Your task to perform on an android device: delete browsing data in the chrome app Image 0: 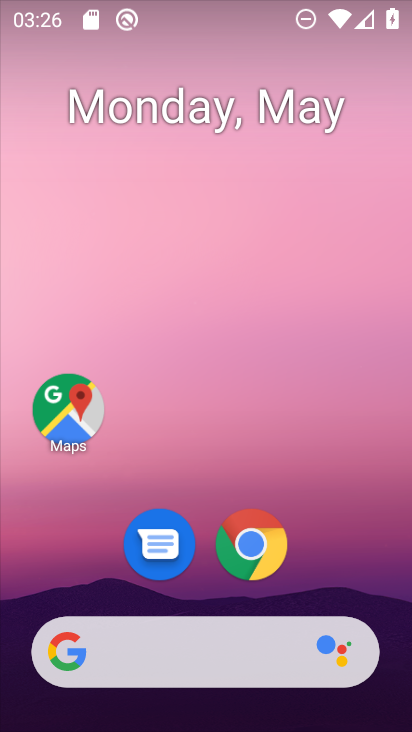
Step 0: drag from (366, 594) to (367, 224)
Your task to perform on an android device: delete browsing data in the chrome app Image 1: 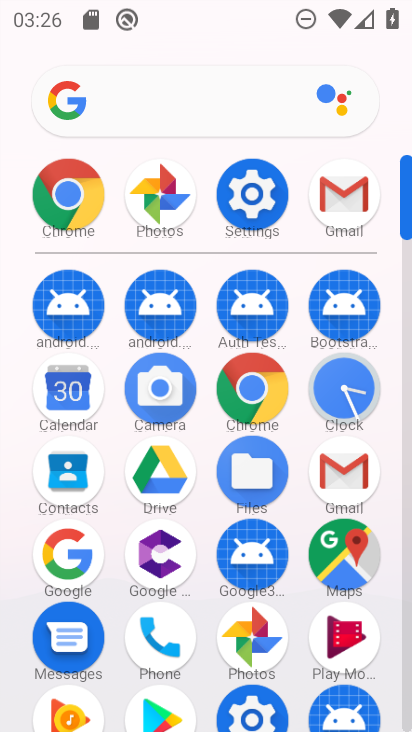
Step 1: click (275, 389)
Your task to perform on an android device: delete browsing data in the chrome app Image 2: 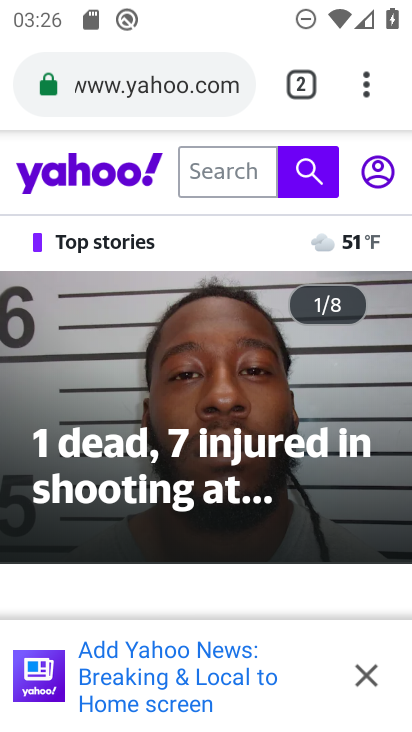
Step 2: click (367, 96)
Your task to perform on an android device: delete browsing data in the chrome app Image 3: 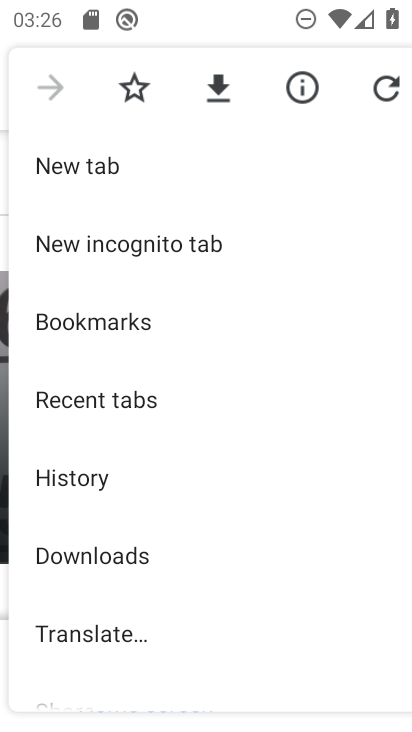
Step 3: drag from (299, 415) to (329, 248)
Your task to perform on an android device: delete browsing data in the chrome app Image 4: 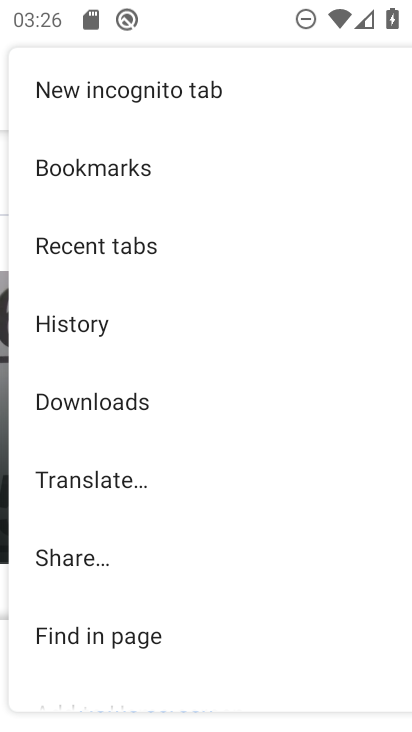
Step 4: drag from (313, 503) to (317, 365)
Your task to perform on an android device: delete browsing data in the chrome app Image 5: 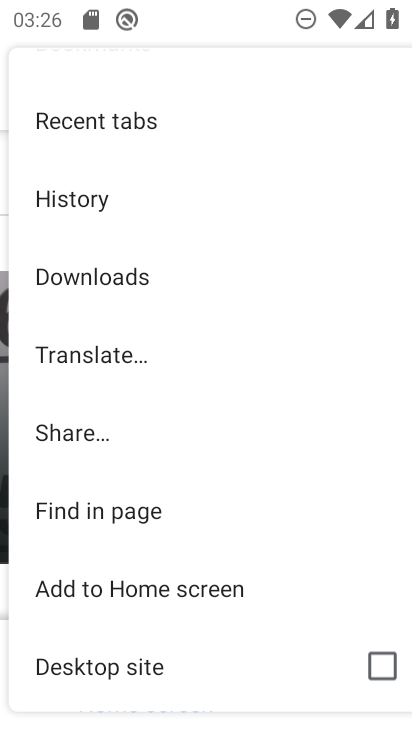
Step 5: drag from (309, 526) to (309, 366)
Your task to perform on an android device: delete browsing data in the chrome app Image 6: 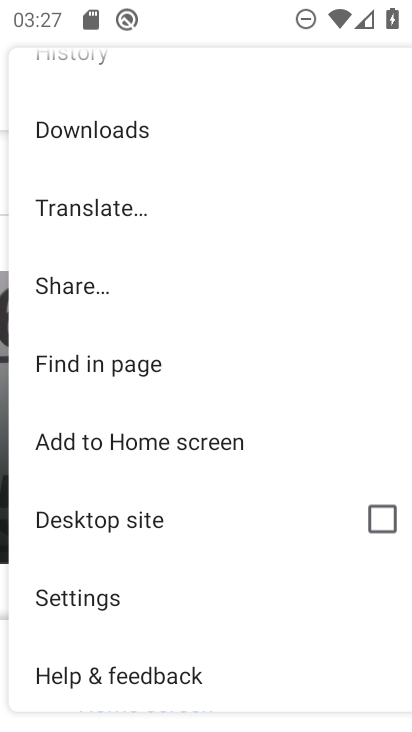
Step 6: click (130, 599)
Your task to perform on an android device: delete browsing data in the chrome app Image 7: 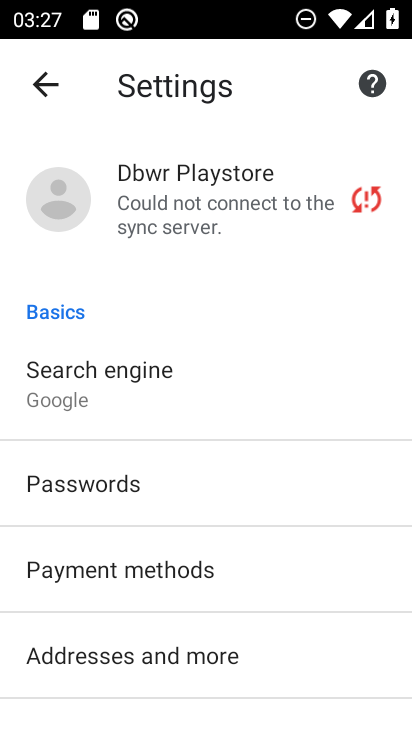
Step 7: drag from (296, 585) to (294, 403)
Your task to perform on an android device: delete browsing data in the chrome app Image 8: 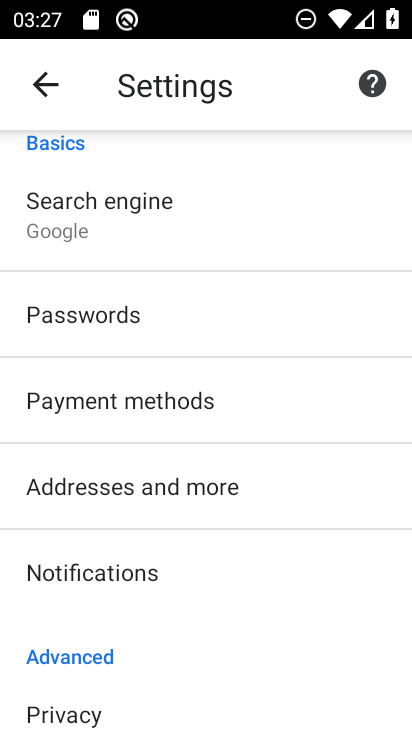
Step 8: drag from (298, 576) to (299, 414)
Your task to perform on an android device: delete browsing data in the chrome app Image 9: 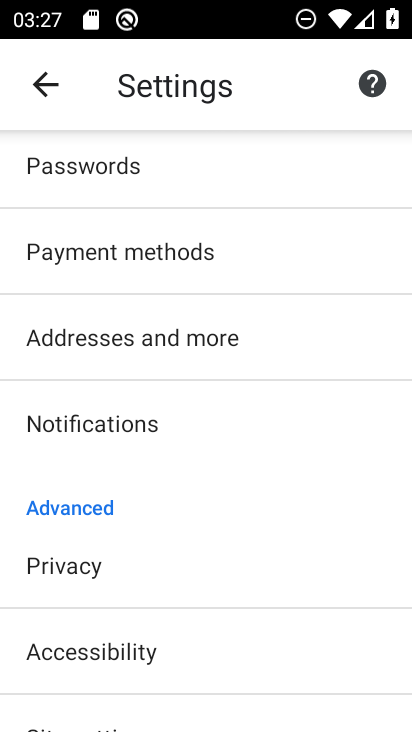
Step 9: drag from (304, 616) to (302, 362)
Your task to perform on an android device: delete browsing data in the chrome app Image 10: 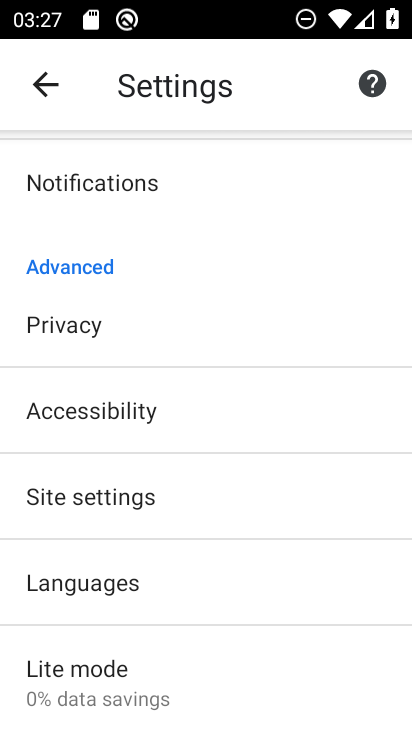
Step 10: click (214, 322)
Your task to perform on an android device: delete browsing data in the chrome app Image 11: 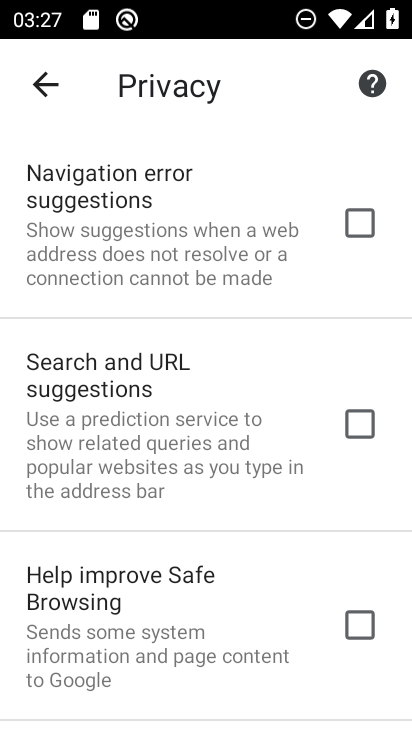
Step 11: drag from (244, 567) to (246, 376)
Your task to perform on an android device: delete browsing data in the chrome app Image 12: 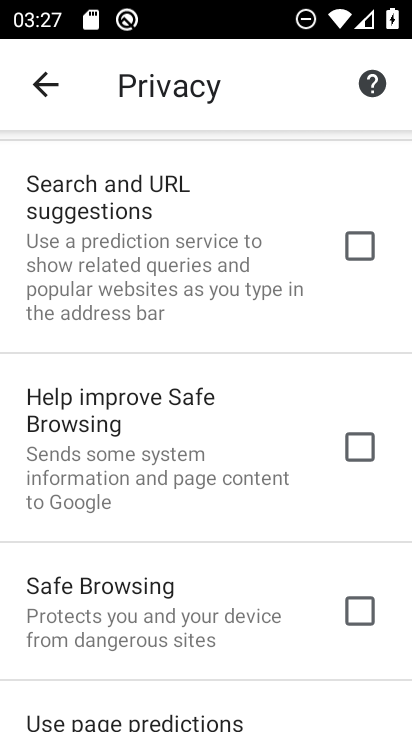
Step 12: drag from (259, 537) to (263, 415)
Your task to perform on an android device: delete browsing data in the chrome app Image 13: 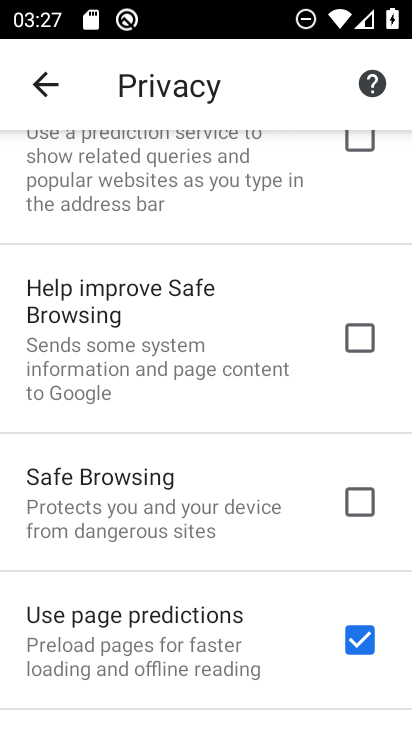
Step 13: drag from (274, 596) to (274, 485)
Your task to perform on an android device: delete browsing data in the chrome app Image 14: 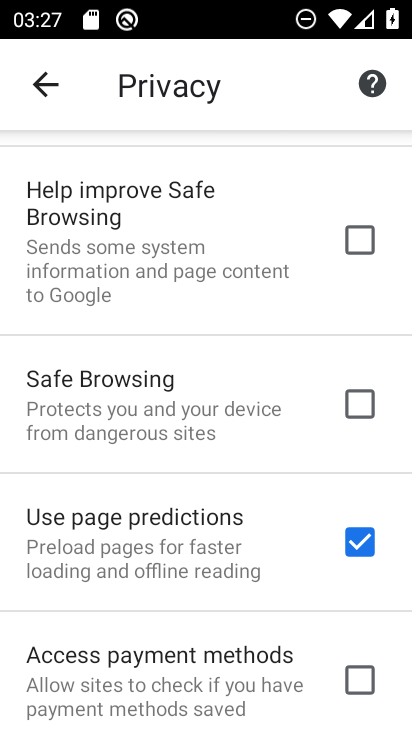
Step 14: drag from (267, 603) to (269, 455)
Your task to perform on an android device: delete browsing data in the chrome app Image 15: 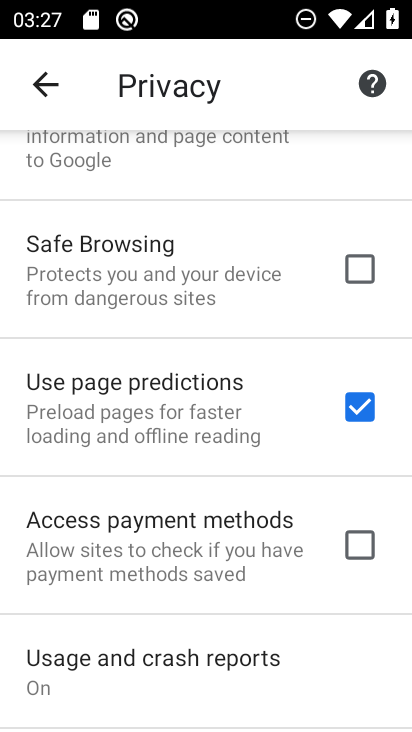
Step 15: drag from (287, 633) to (283, 338)
Your task to perform on an android device: delete browsing data in the chrome app Image 16: 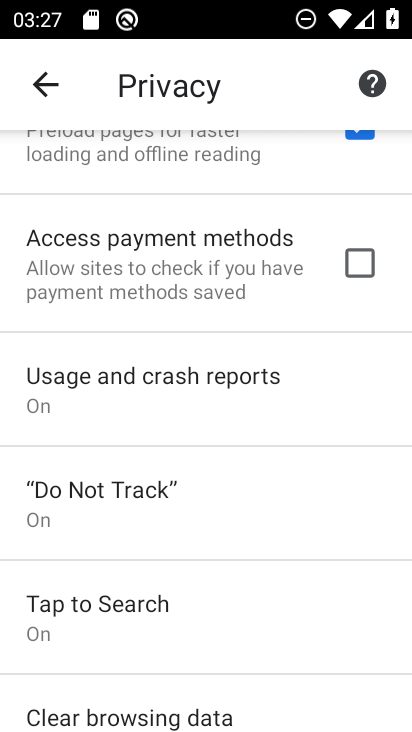
Step 16: drag from (290, 594) to (289, 422)
Your task to perform on an android device: delete browsing data in the chrome app Image 17: 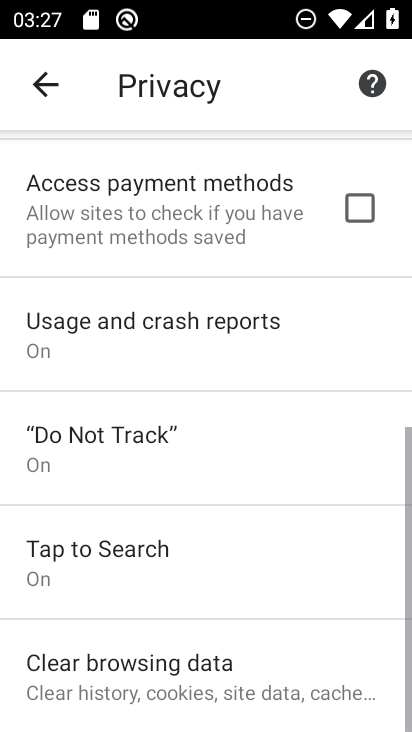
Step 17: click (264, 678)
Your task to perform on an android device: delete browsing data in the chrome app Image 18: 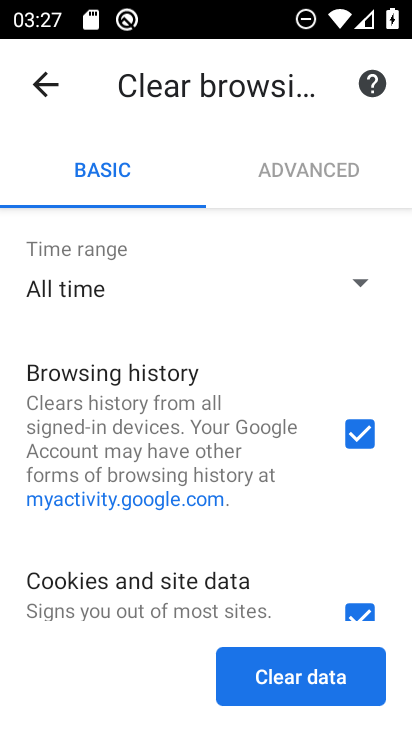
Step 18: click (301, 676)
Your task to perform on an android device: delete browsing data in the chrome app Image 19: 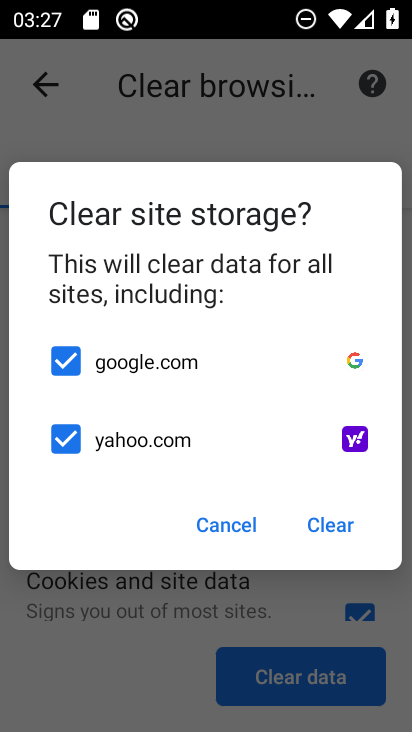
Step 19: click (334, 534)
Your task to perform on an android device: delete browsing data in the chrome app Image 20: 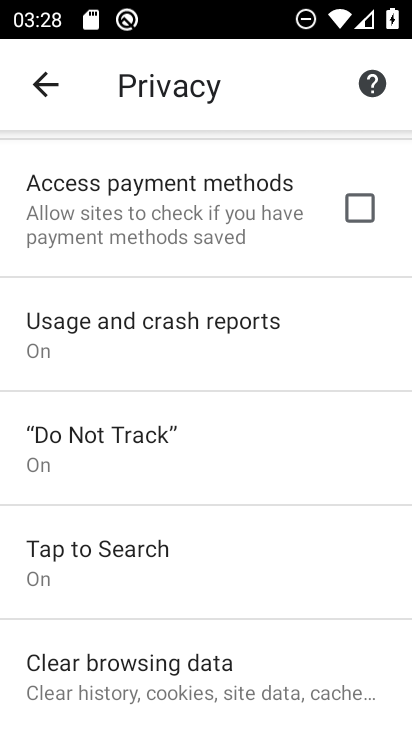
Step 20: task complete